Your task to perform on an android device: toggle location history Image 0: 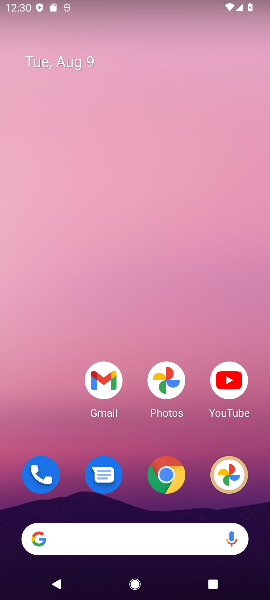
Step 0: click (126, 443)
Your task to perform on an android device: toggle location history Image 1: 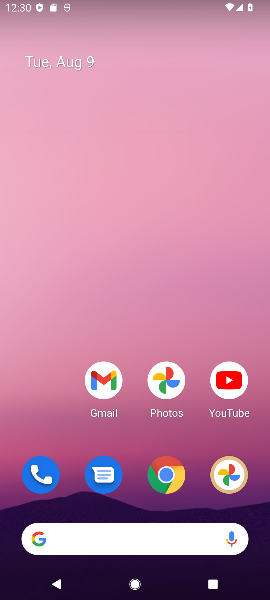
Step 1: drag from (126, 443) to (168, 44)
Your task to perform on an android device: toggle location history Image 2: 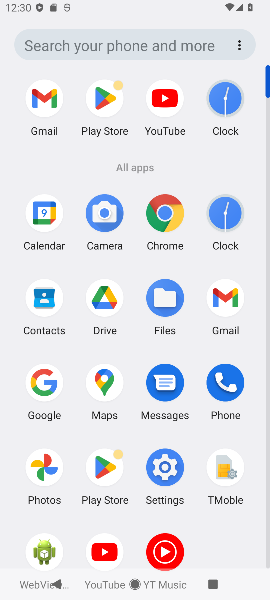
Step 2: click (162, 468)
Your task to perform on an android device: toggle location history Image 3: 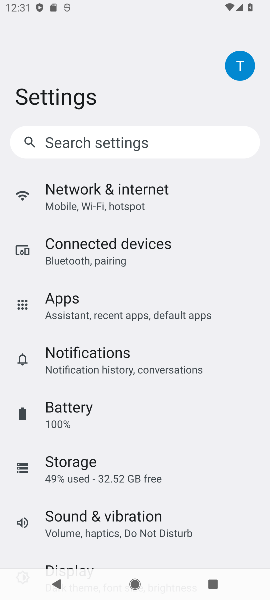
Step 3: drag from (72, 466) to (72, 185)
Your task to perform on an android device: toggle location history Image 4: 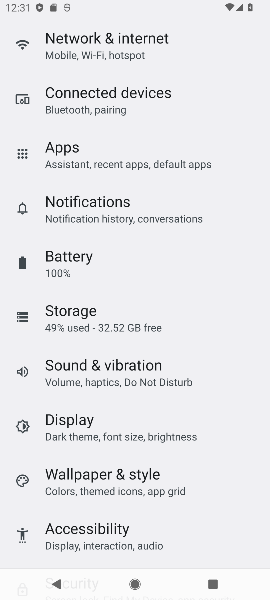
Step 4: drag from (101, 515) to (101, 277)
Your task to perform on an android device: toggle location history Image 5: 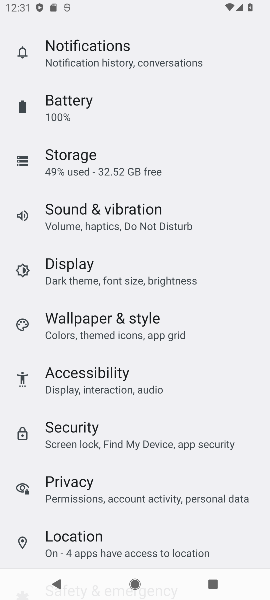
Step 5: click (92, 534)
Your task to perform on an android device: toggle location history Image 6: 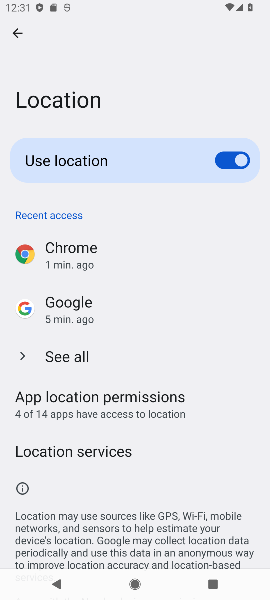
Step 6: click (73, 446)
Your task to perform on an android device: toggle location history Image 7: 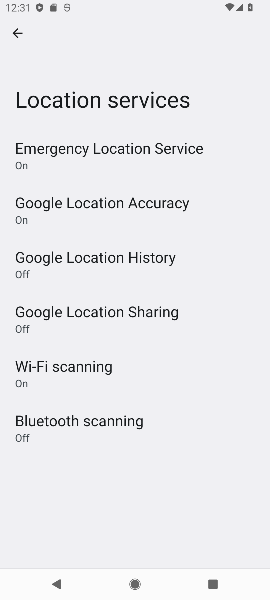
Step 7: click (118, 264)
Your task to perform on an android device: toggle location history Image 8: 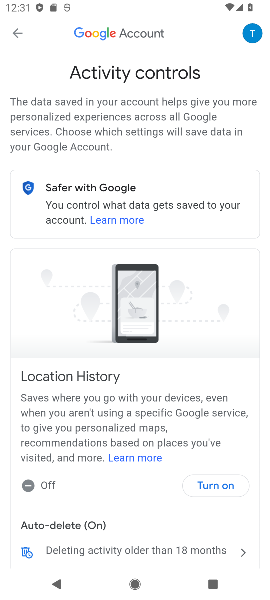
Step 8: click (215, 489)
Your task to perform on an android device: toggle location history Image 9: 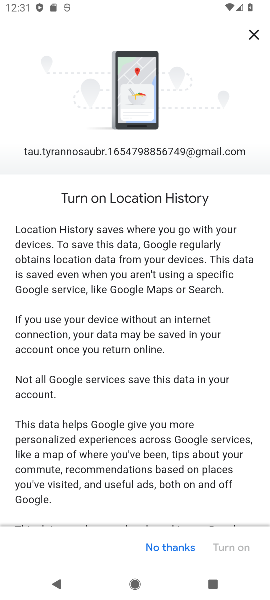
Step 9: drag from (204, 489) to (209, 112)
Your task to perform on an android device: toggle location history Image 10: 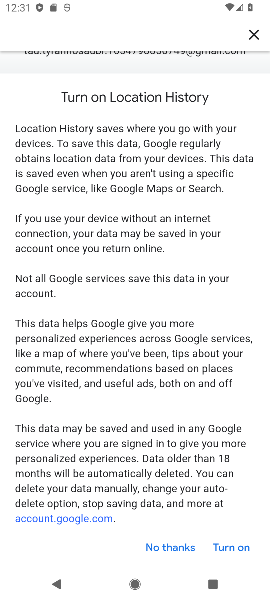
Step 10: click (226, 545)
Your task to perform on an android device: toggle location history Image 11: 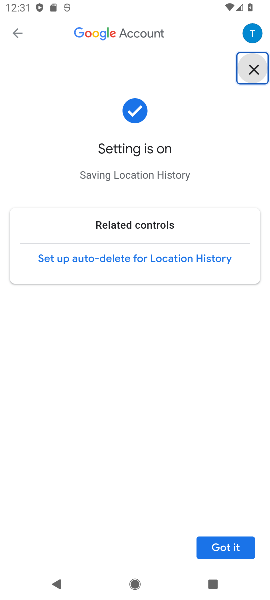
Step 11: task complete